Your task to perform on an android device: open device folders in google photos Image 0: 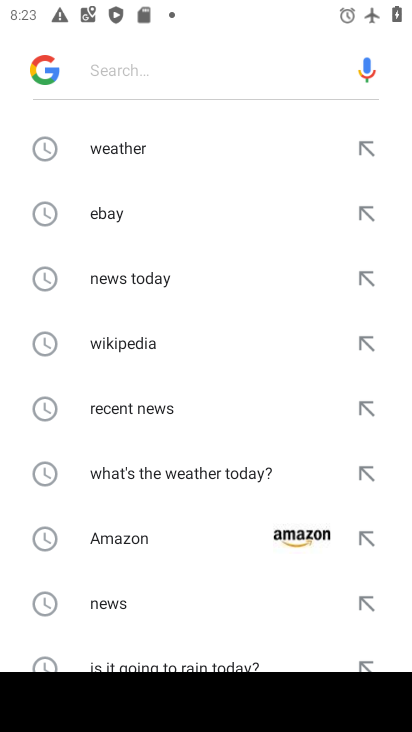
Step 0: press home button
Your task to perform on an android device: open device folders in google photos Image 1: 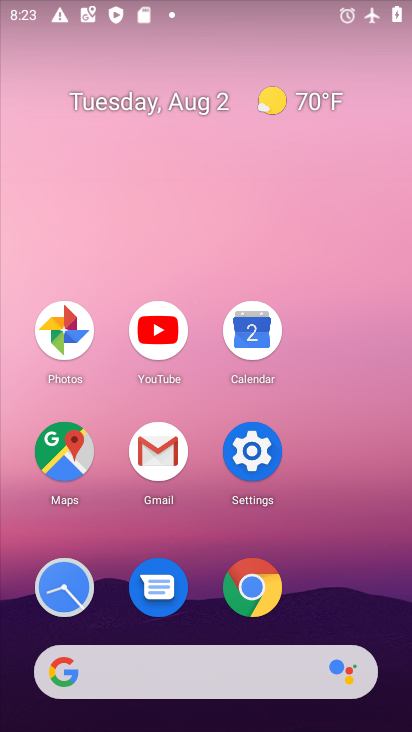
Step 1: click (64, 330)
Your task to perform on an android device: open device folders in google photos Image 2: 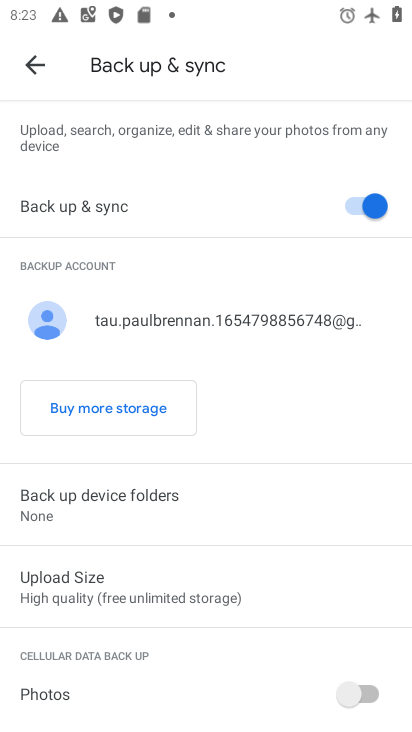
Step 2: click (37, 70)
Your task to perform on an android device: open device folders in google photos Image 3: 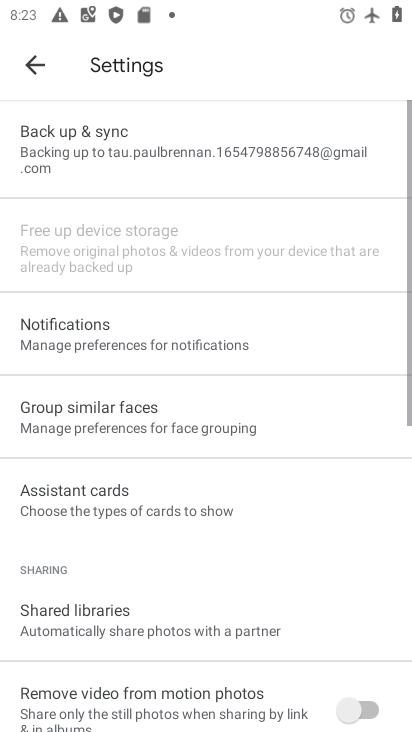
Step 3: click (37, 70)
Your task to perform on an android device: open device folders in google photos Image 4: 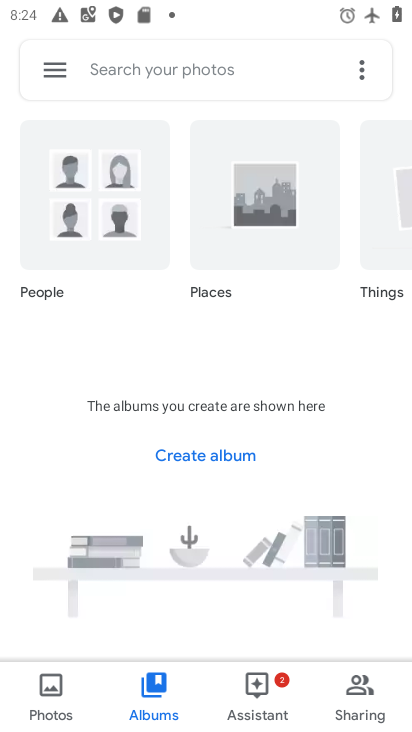
Step 4: click (56, 72)
Your task to perform on an android device: open device folders in google photos Image 5: 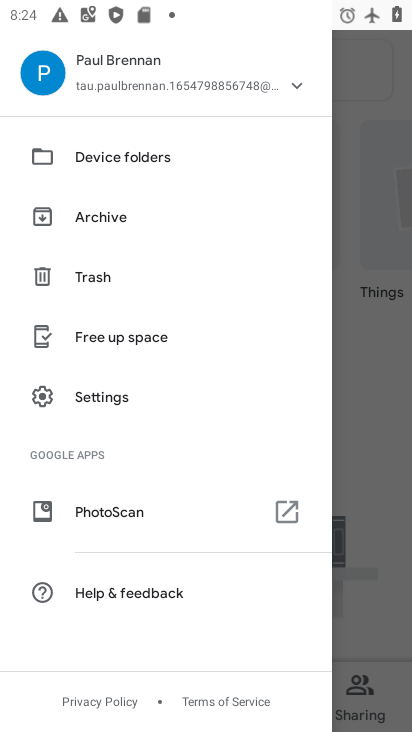
Step 5: click (116, 154)
Your task to perform on an android device: open device folders in google photos Image 6: 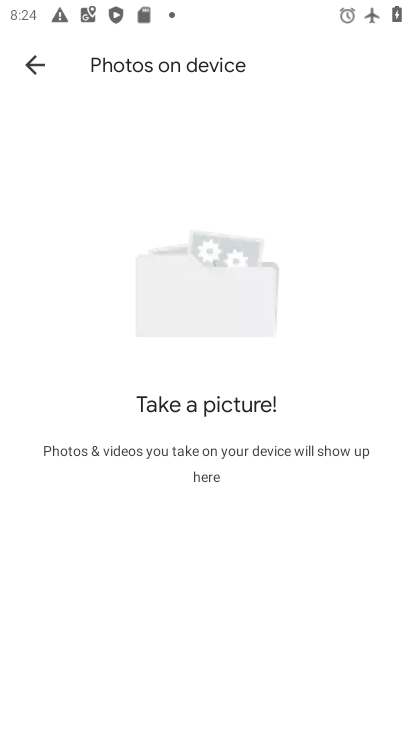
Step 6: task complete